Your task to perform on an android device: View the shopping cart on bestbuy. Image 0: 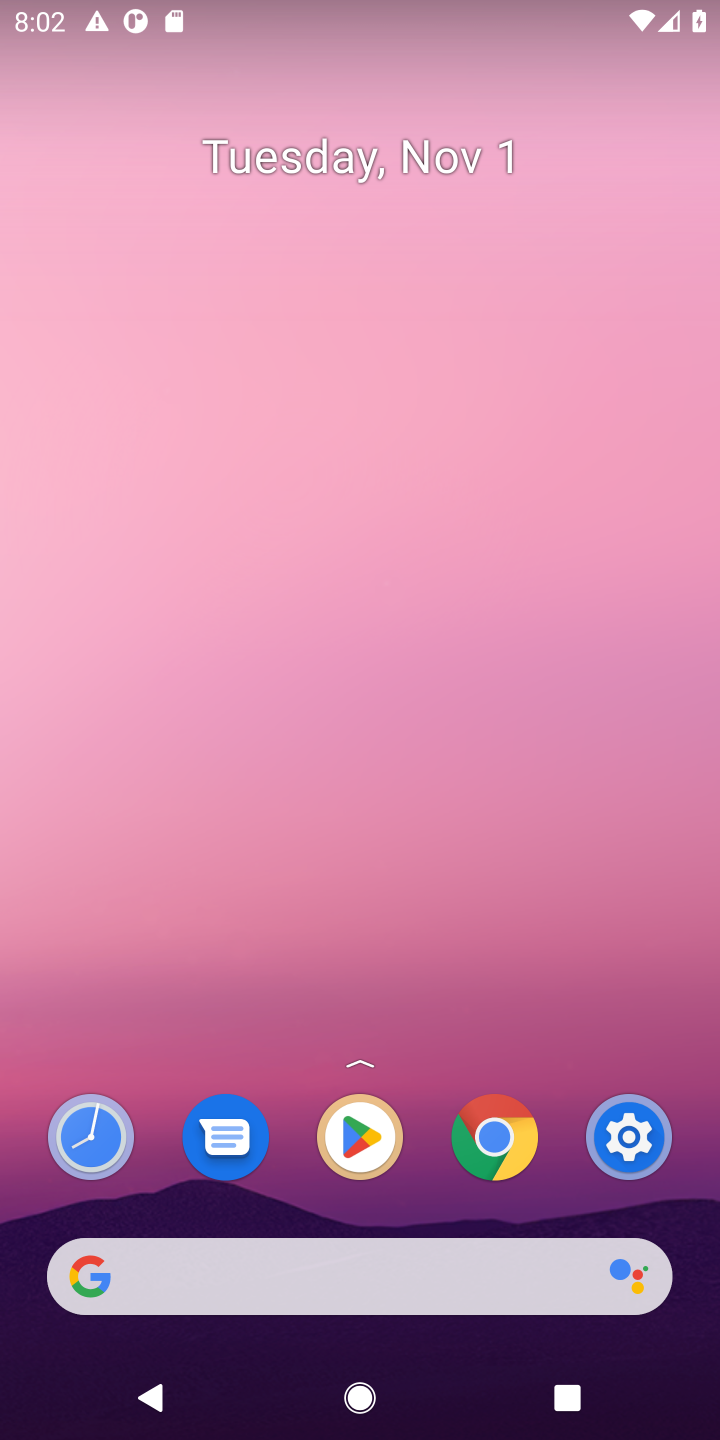
Step 0: click (343, 1273)
Your task to perform on an android device: View the shopping cart on bestbuy. Image 1: 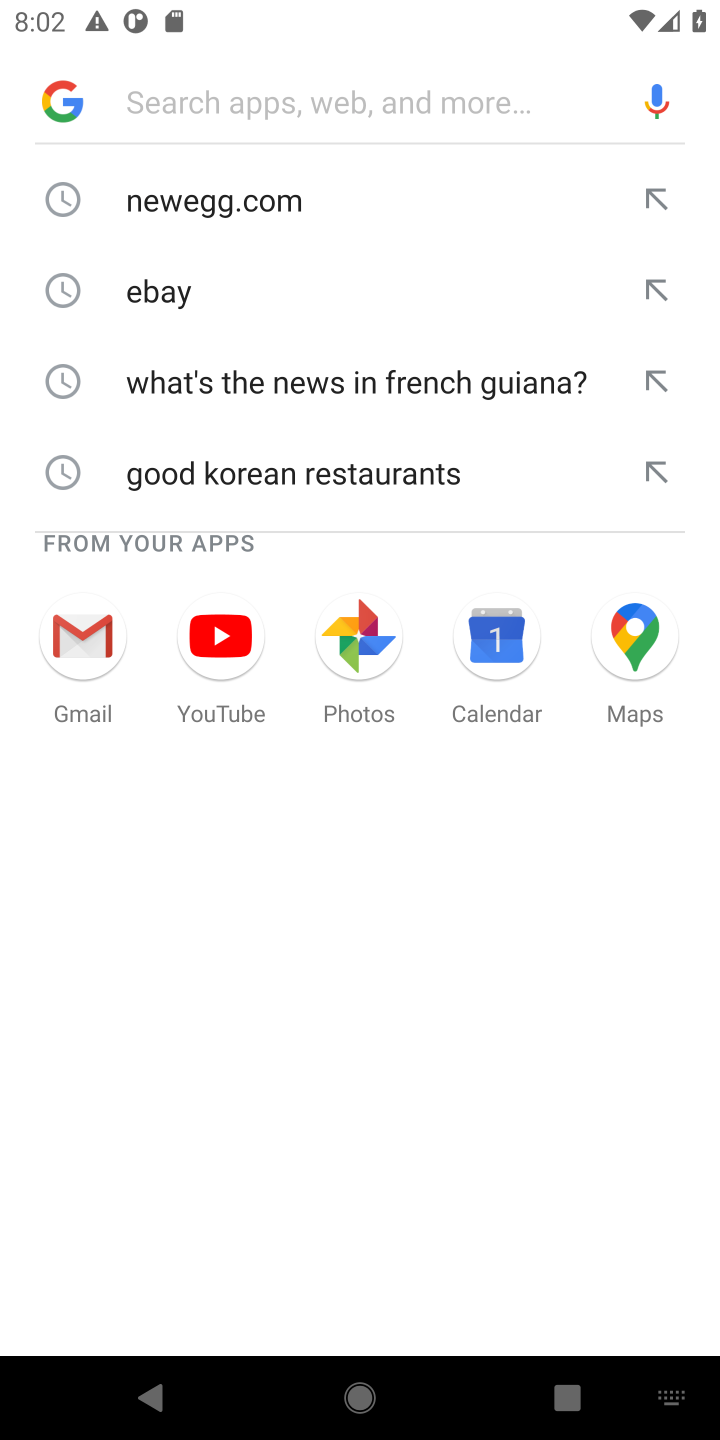
Step 1: type "bestbuy"
Your task to perform on an android device: View the shopping cart on bestbuy. Image 2: 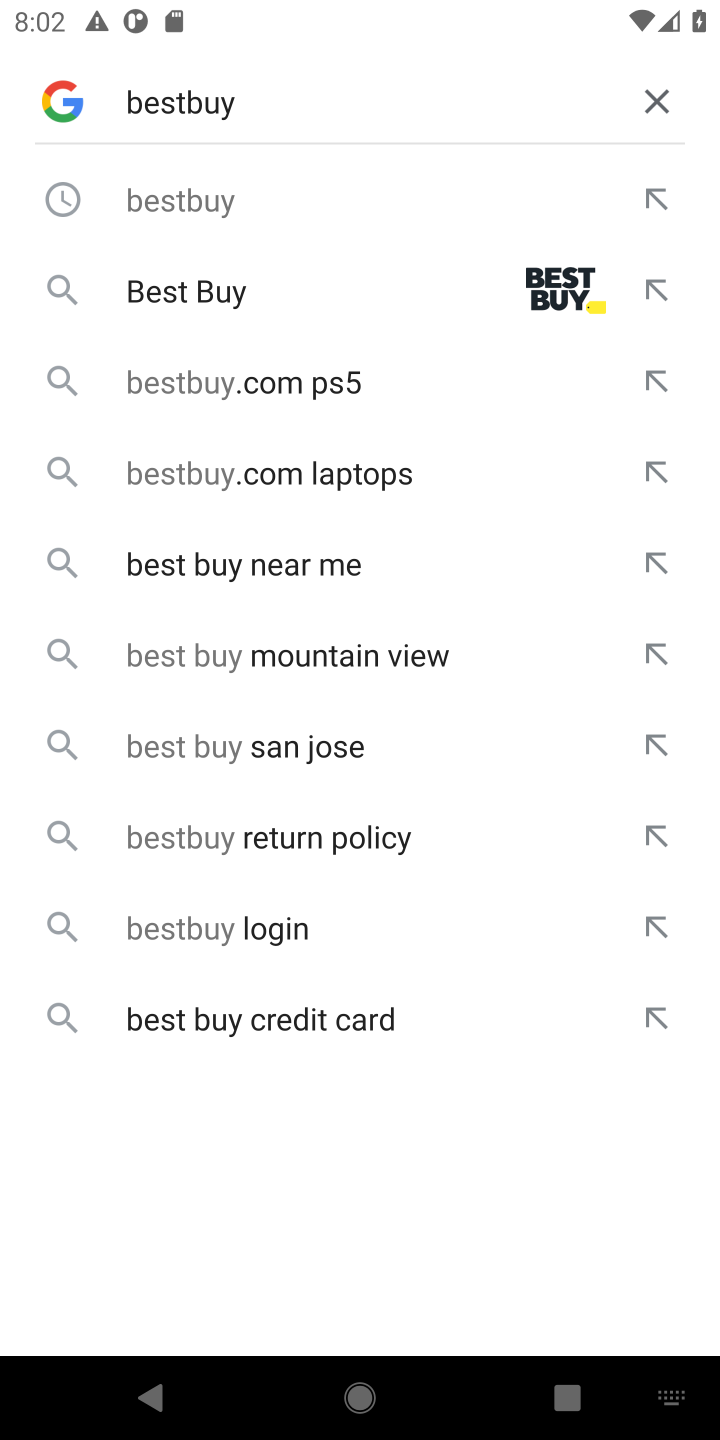
Step 2: click (329, 285)
Your task to perform on an android device: View the shopping cart on bestbuy. Image 3: 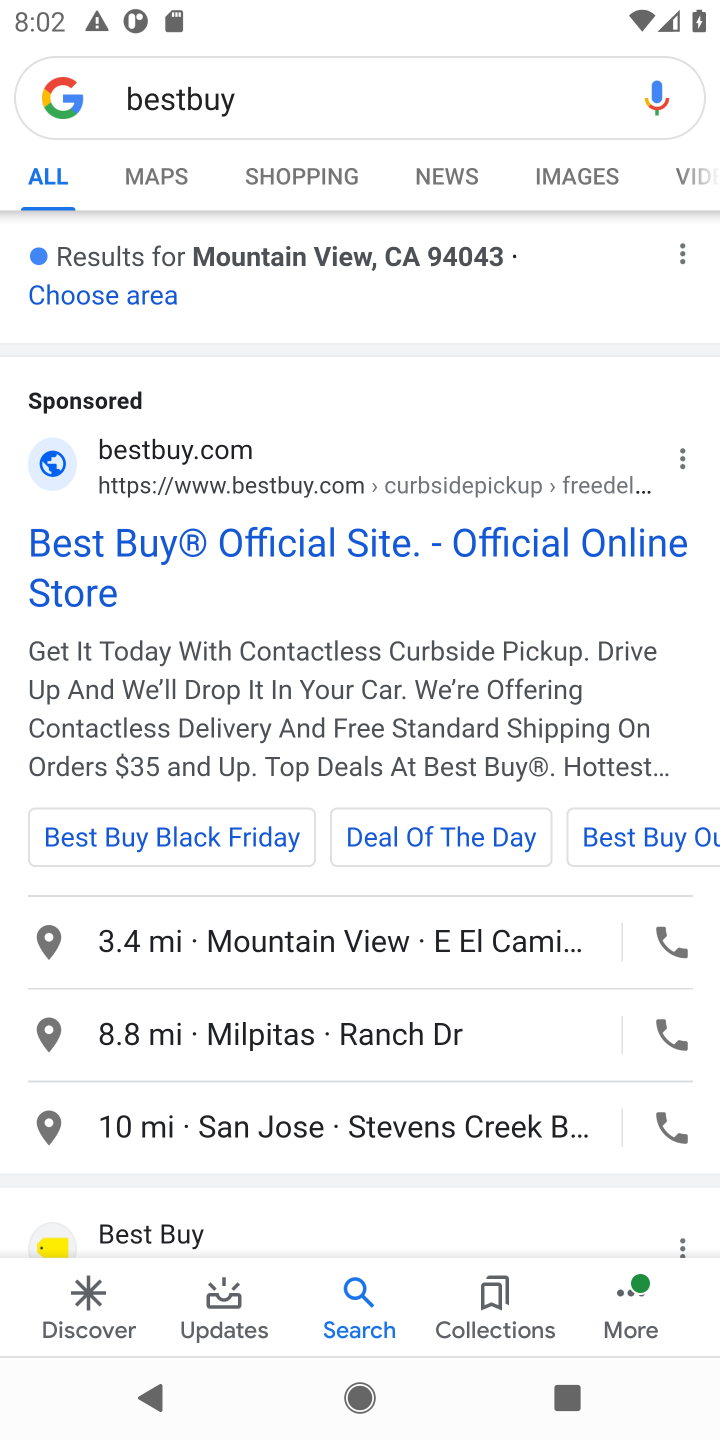
Step 3: drag from (241, 1140) to (263, 656)
Your task to perform on an android device: View the shopping cart on bestbuy. Image 4: 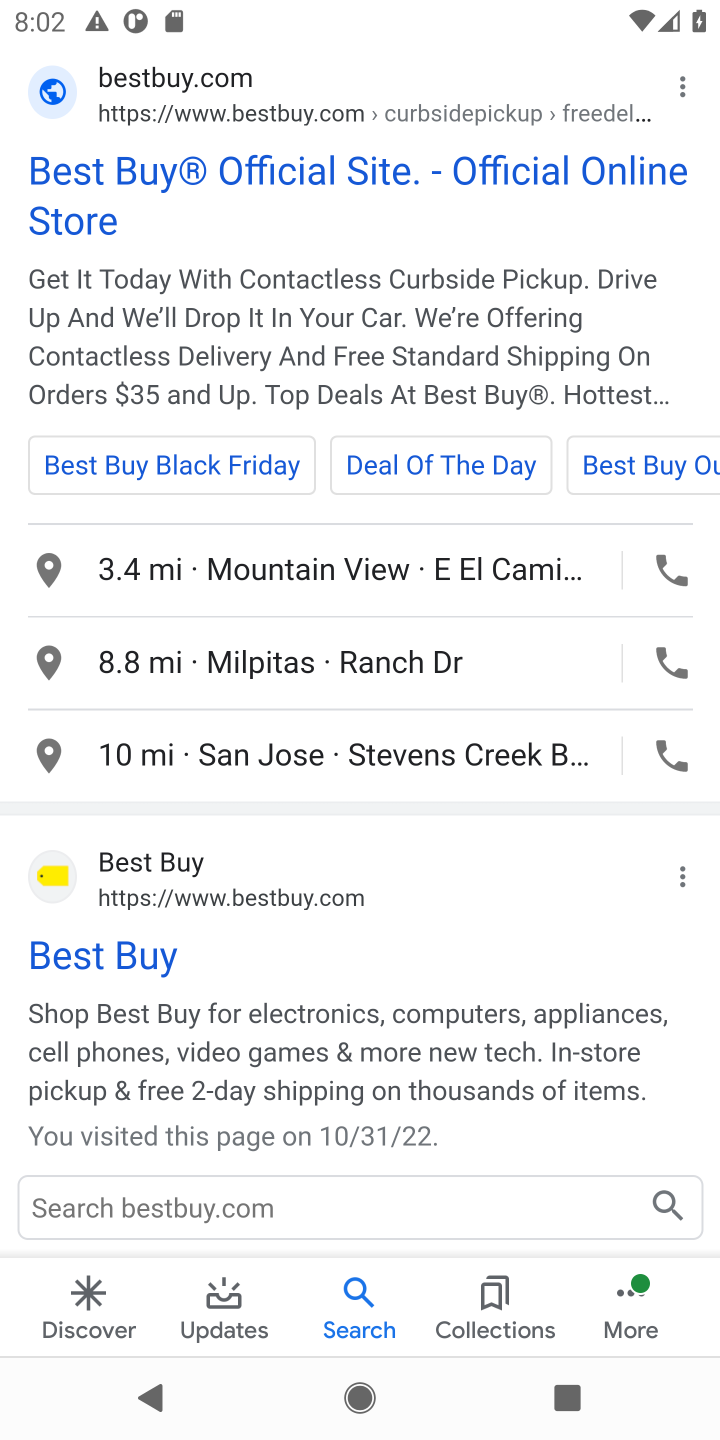
Step 4: click (147, 860)
Your task to perform on an android device: View the shopping cart on bestbuy. Image 5: 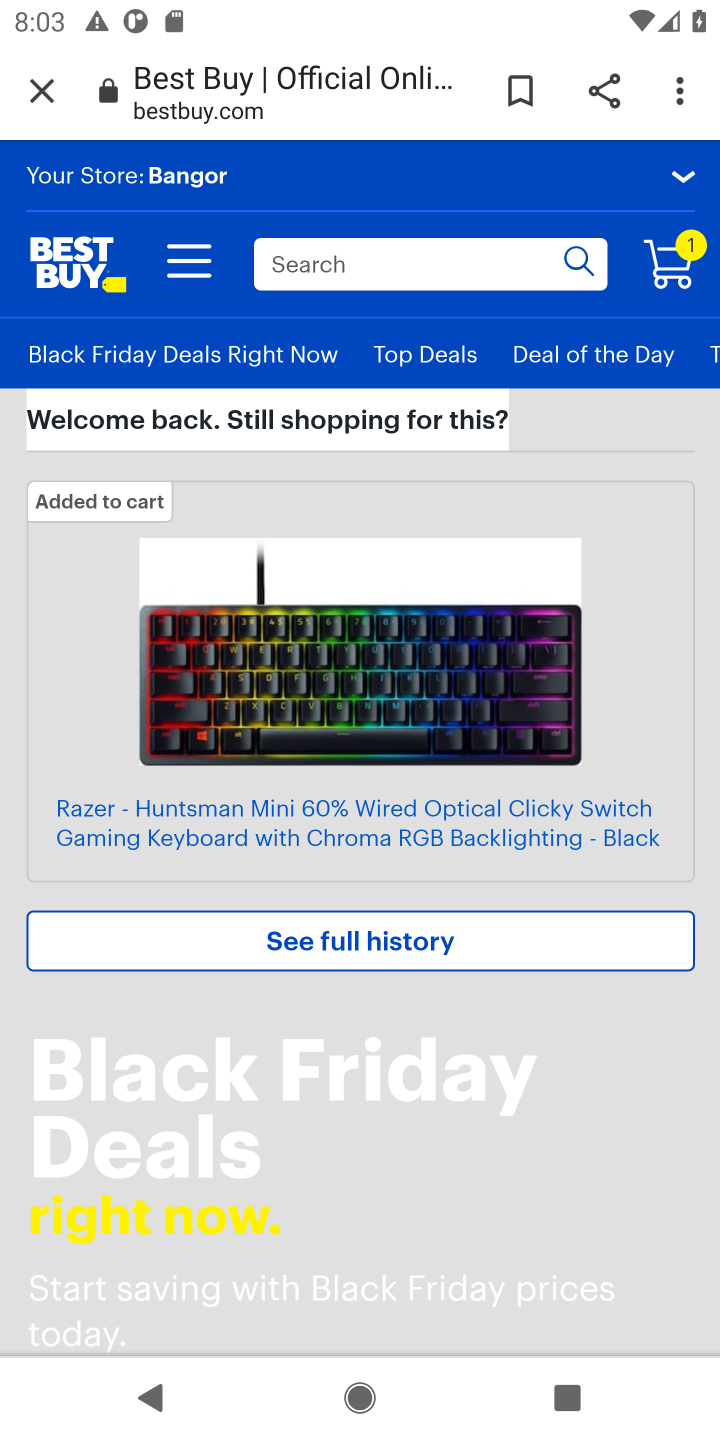
Step 5: click (678, 243)
Your task to perform on an android device: View the shopping cart on bestbuy. Image 6: 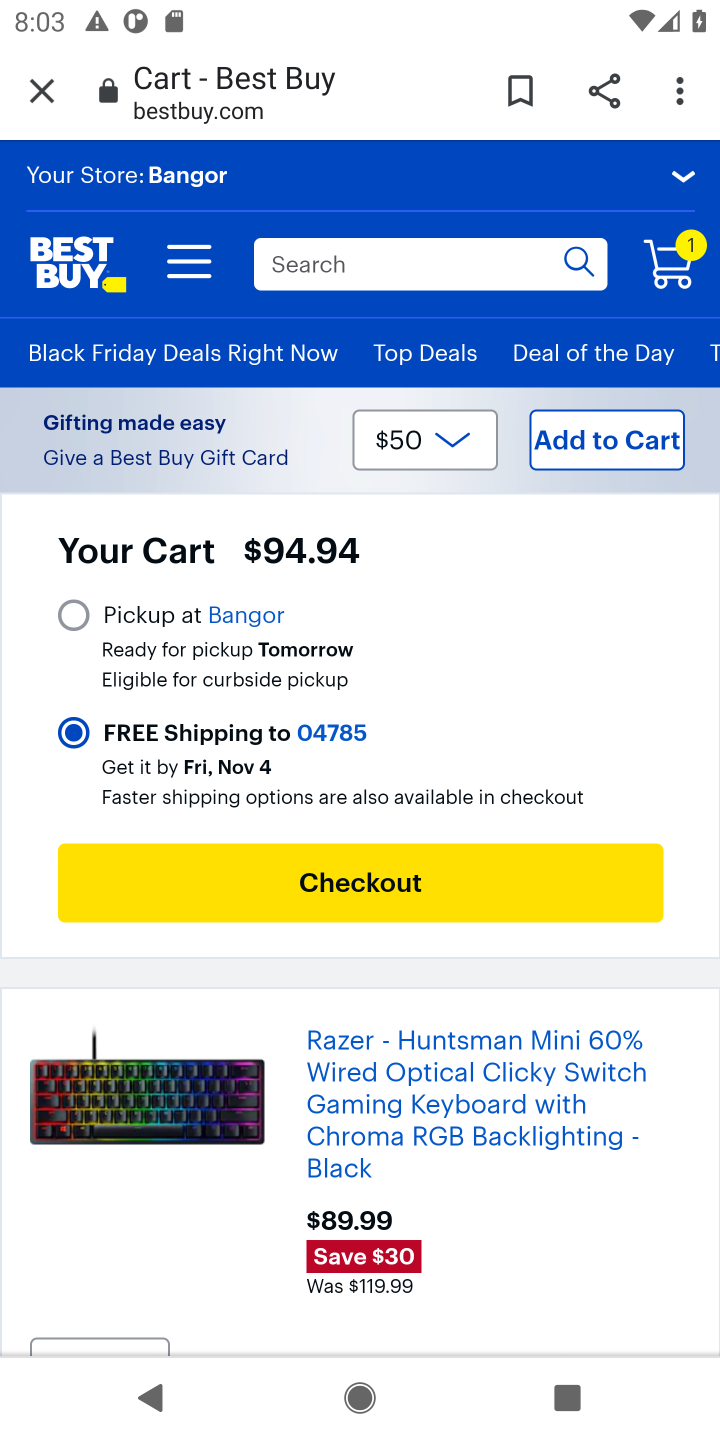
Step 6: task complete